Your task to perform on an android device: open app "Fetch Rewards" (install if not already installed) and go to login screen Image 0: 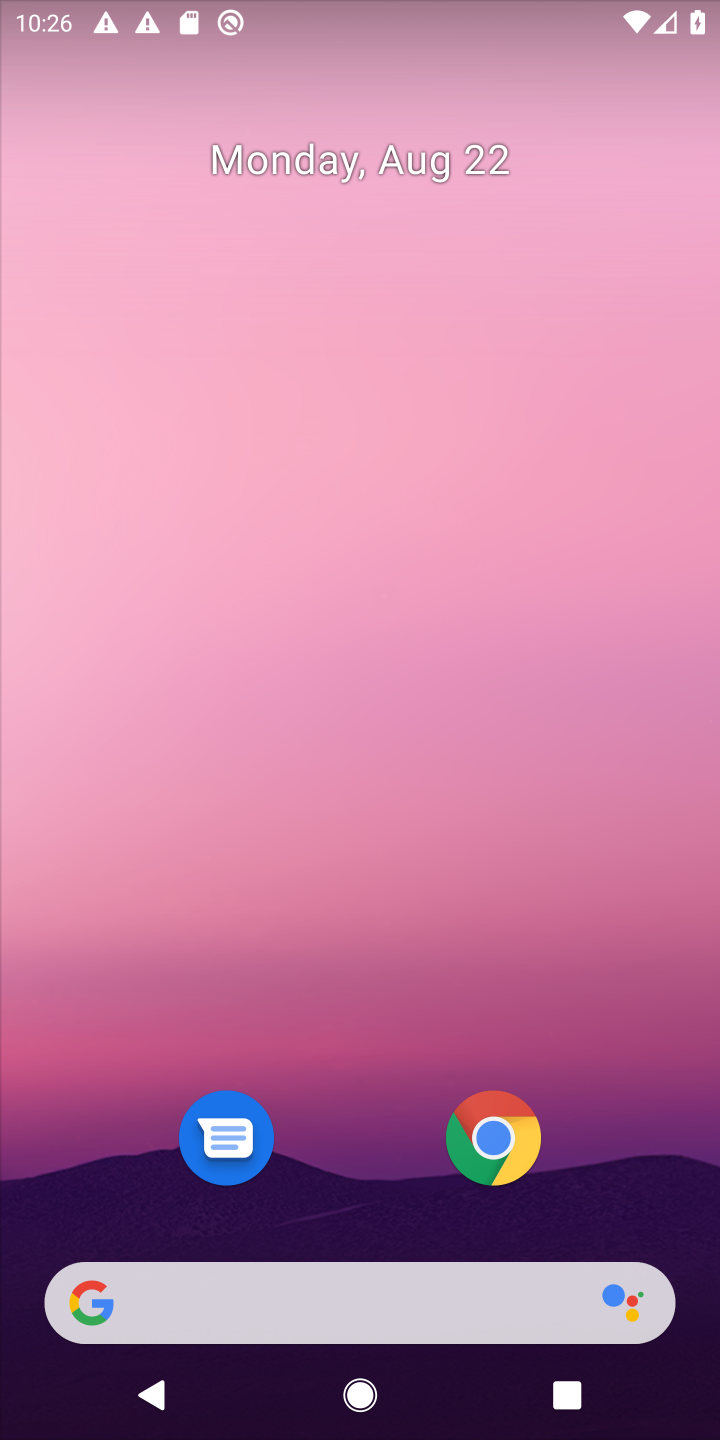
Step 0: press home button
Your task to perform on an android device: open app "Fetch Rewards" (install if not already installed) and go to login screen Image 1: 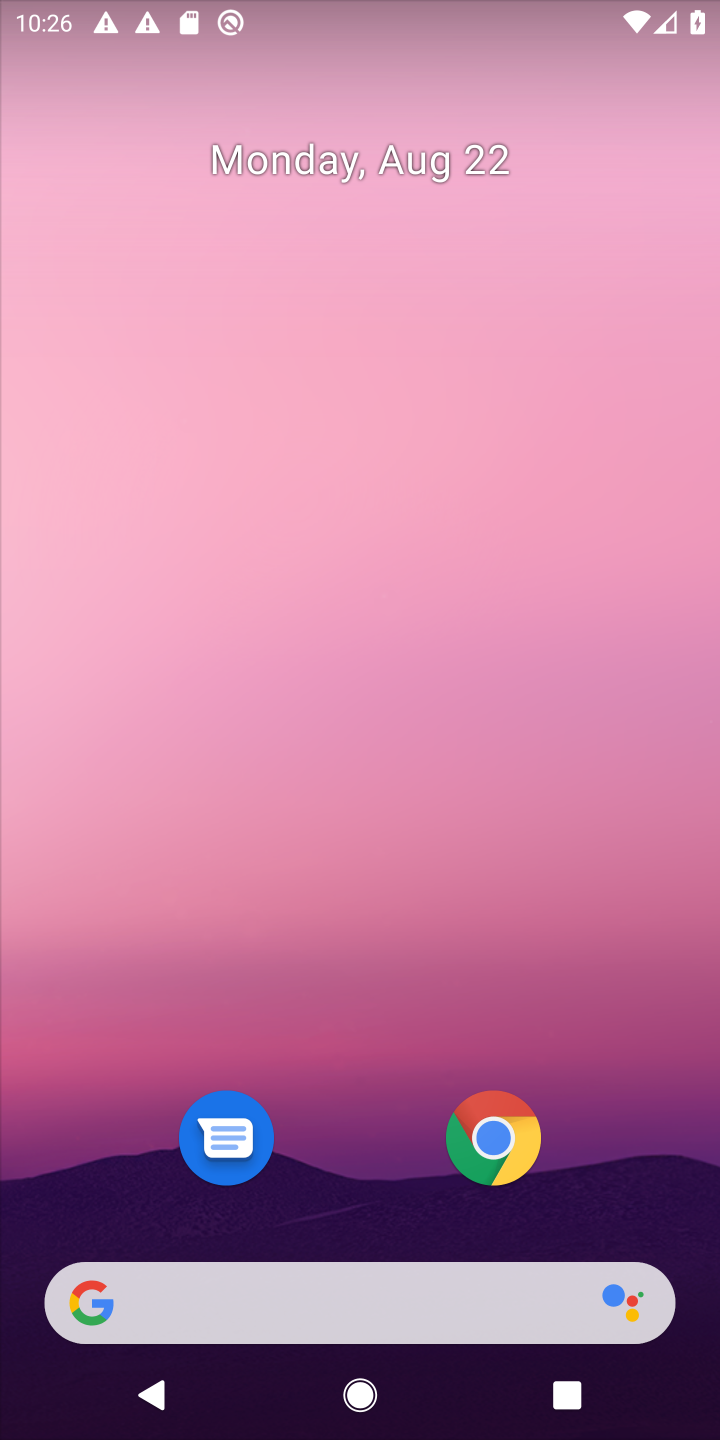
Step 1: drag from (606, 1130) to (656, 235)
Your task to perform on an android device: open app "Fetch Rewards" (install if not already installed) and go to login screen Image 2: 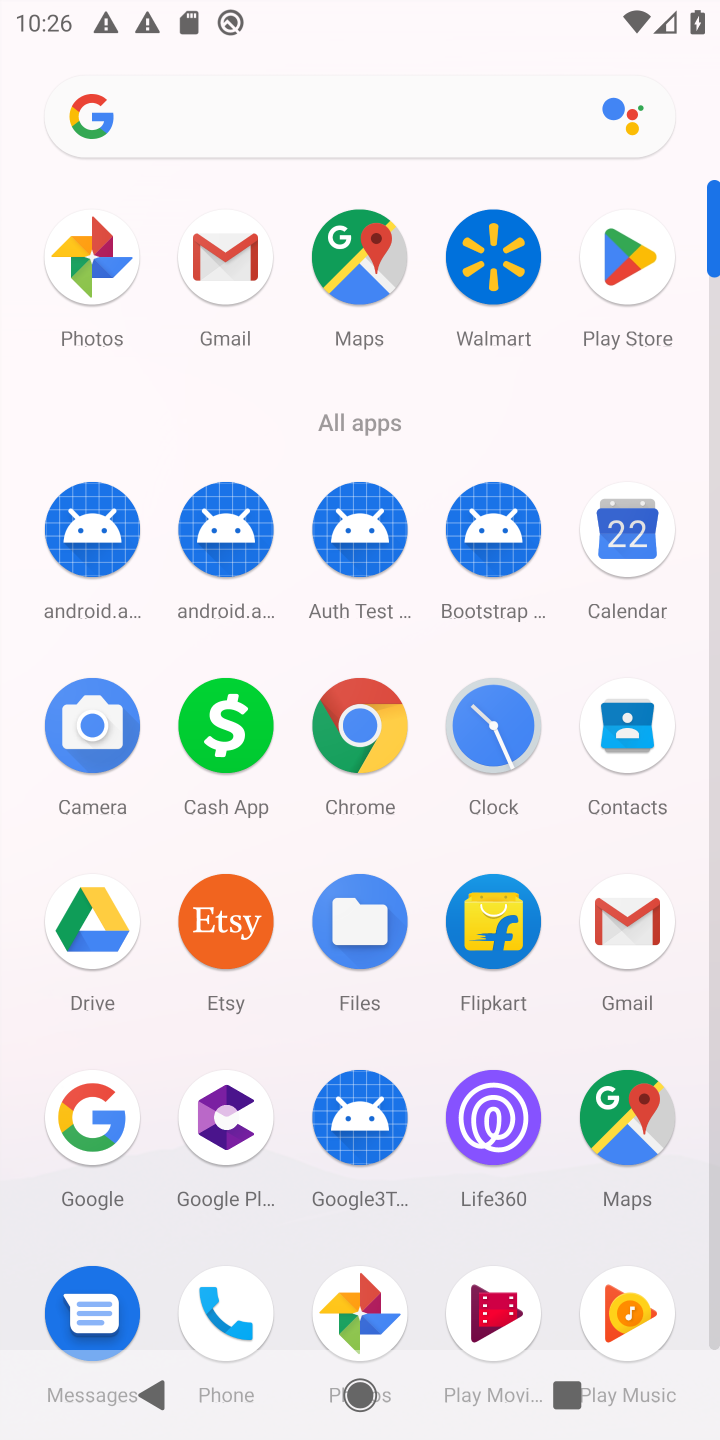
Step 2: click (625, 249)
Your task to perform on an android device: open app "Fetch Rewards" (install if not already installed) and go to login screen Image 3: 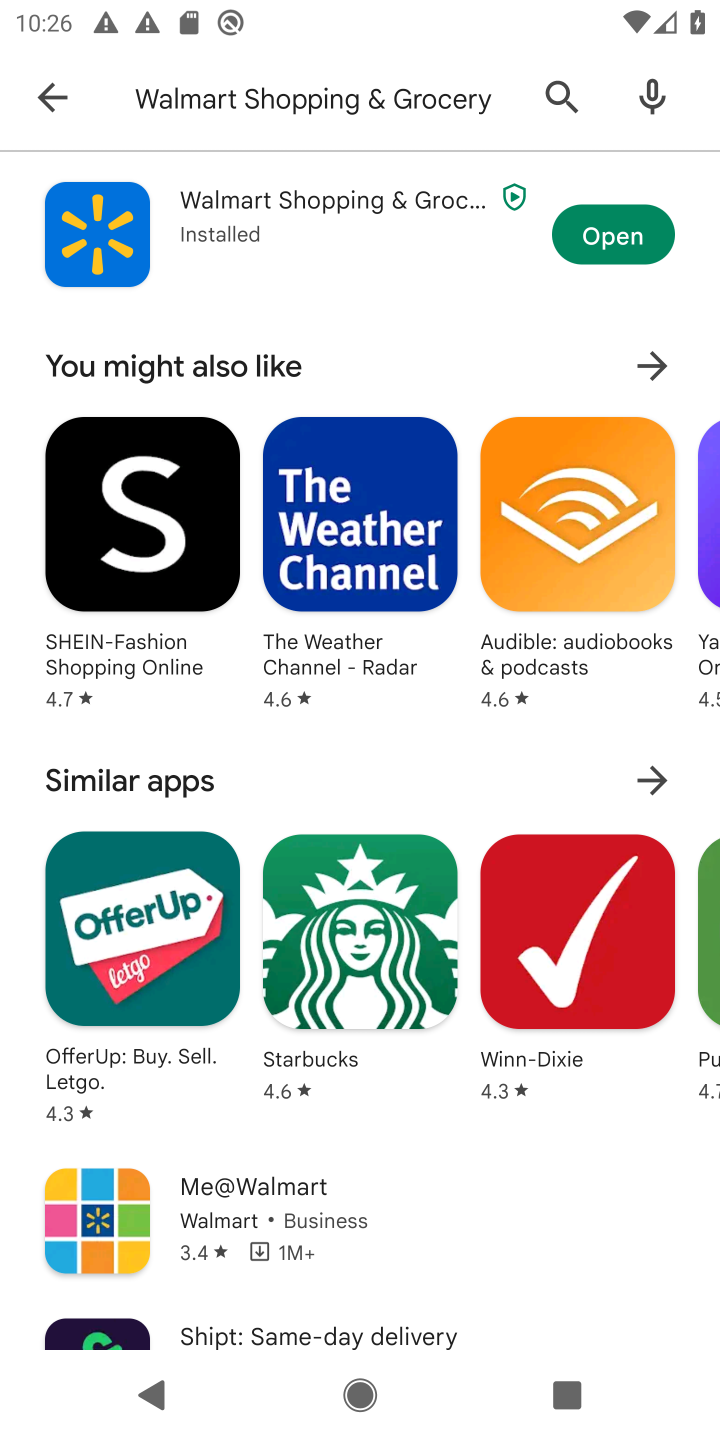
Step 3: press back button
Your task to perform on an android device: open app "Fetch Rewards" (install if not already installed) and go to login screen Image 4: 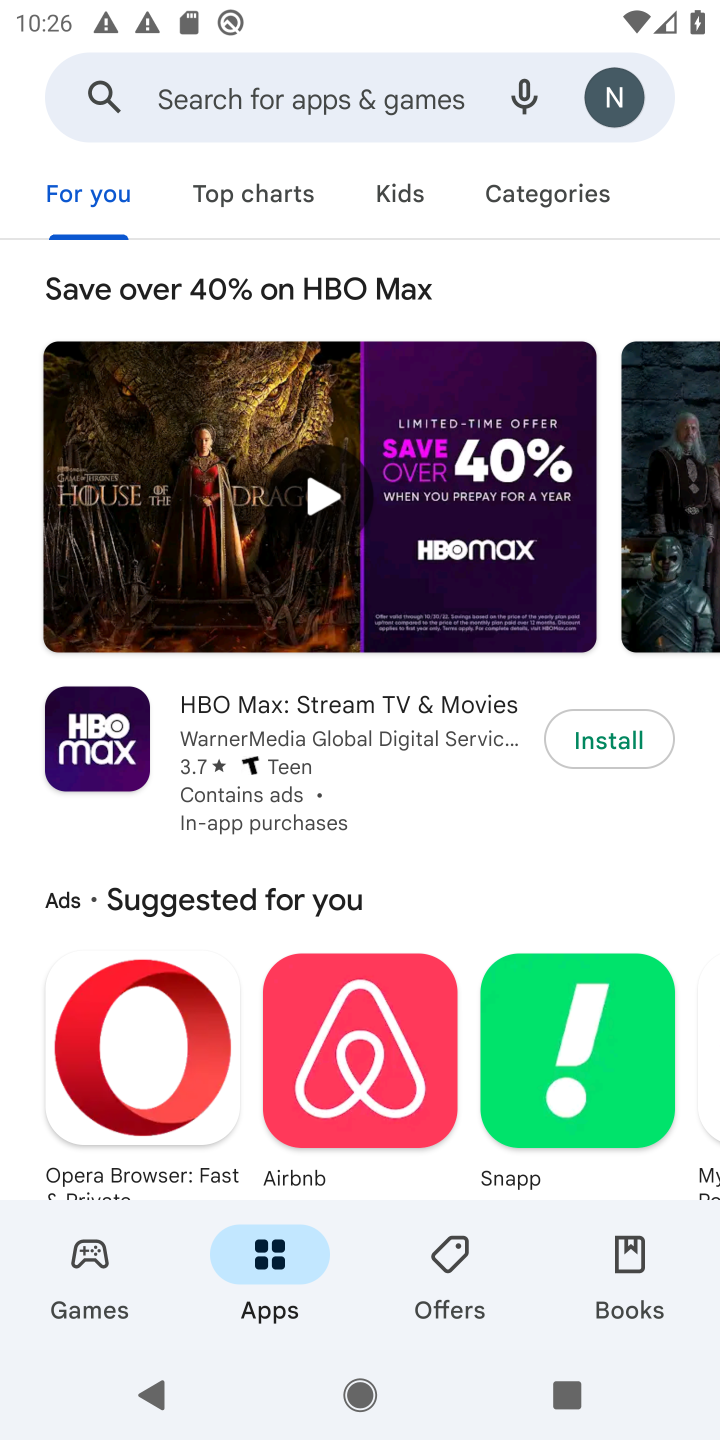
Step 4: click (273, 99)
Your task to perform on an android device: open app "Fetch Rewards" (install if not already installed) and go to login screen Image 5: 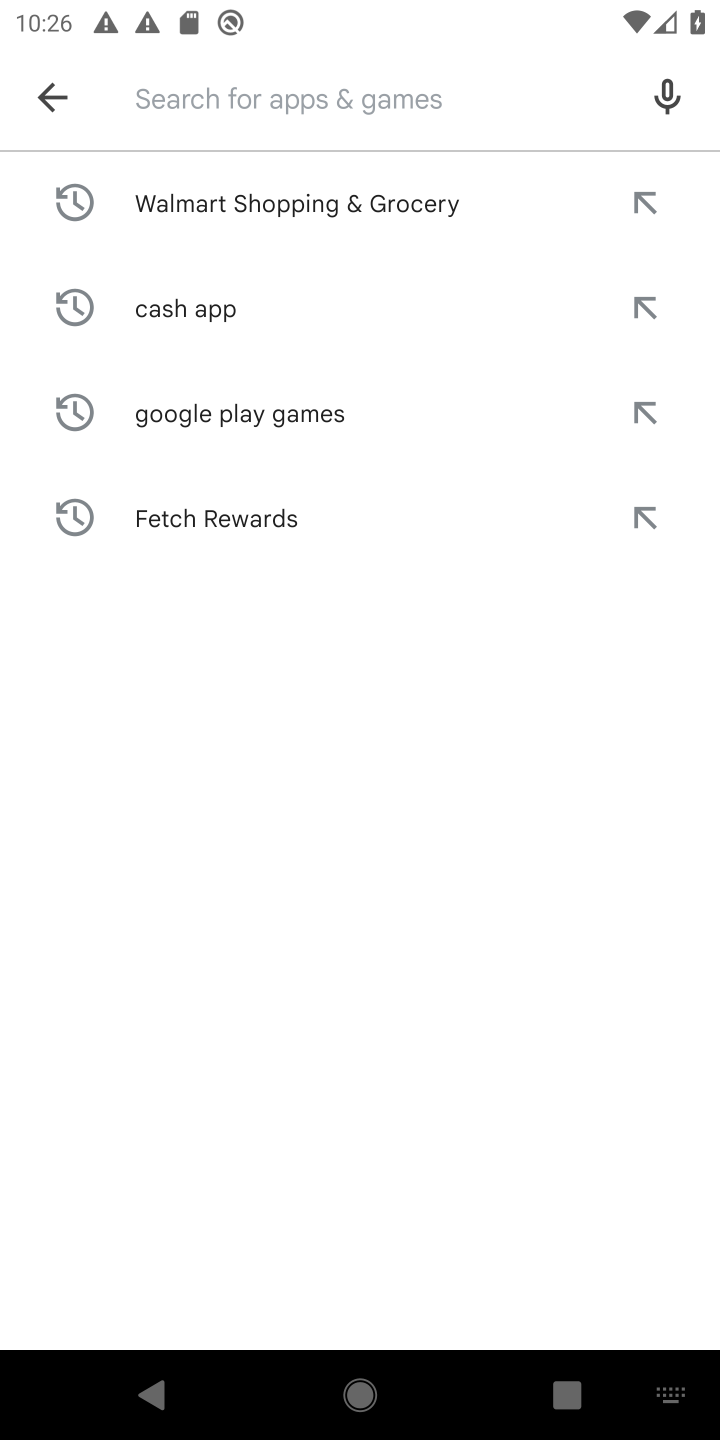
Step 5: type "Fetch Rewards"
Your task to perform on an android device: open app "Fetch Rewards" (install if not already installed) and go to login screen Image 6: 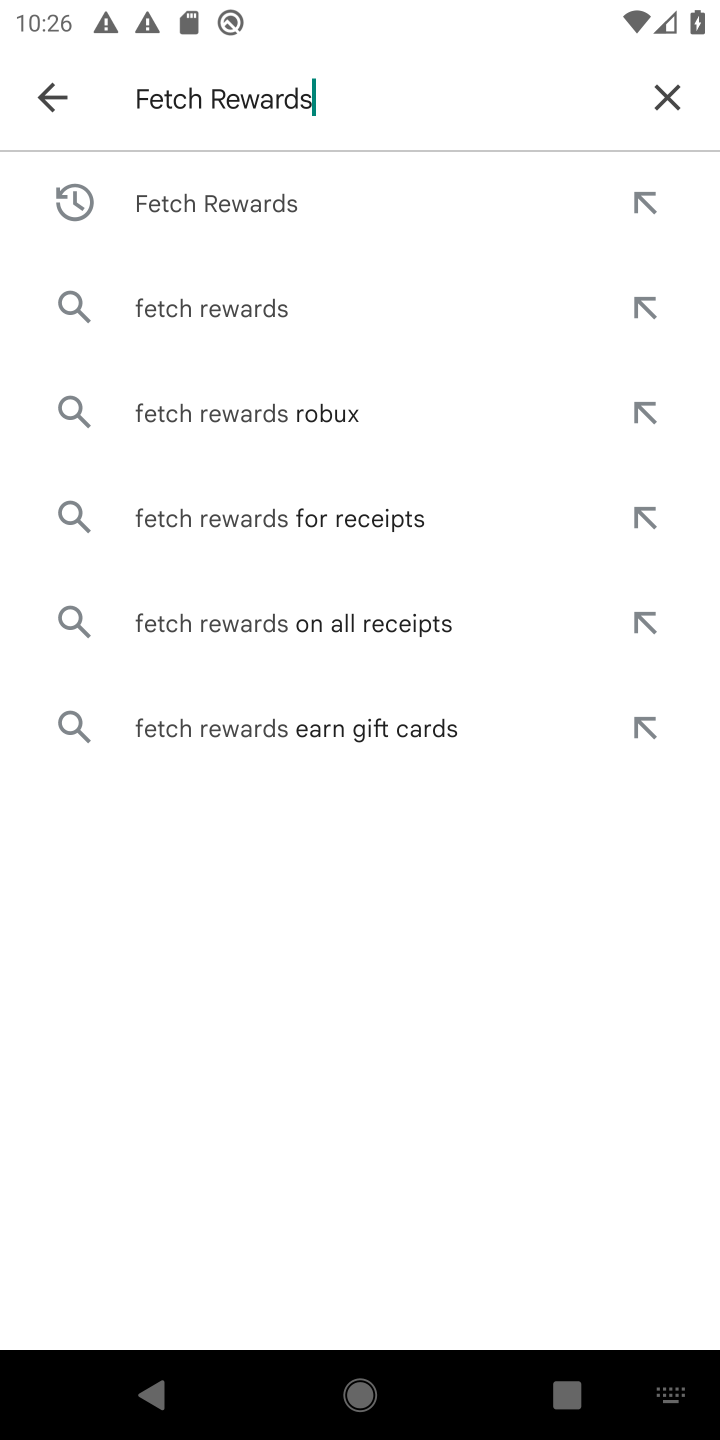
Step 6: press enter
Your task to perform on an android device: open app "Fetch Rewards" (install if not already installed) and go to login screen Image 7: 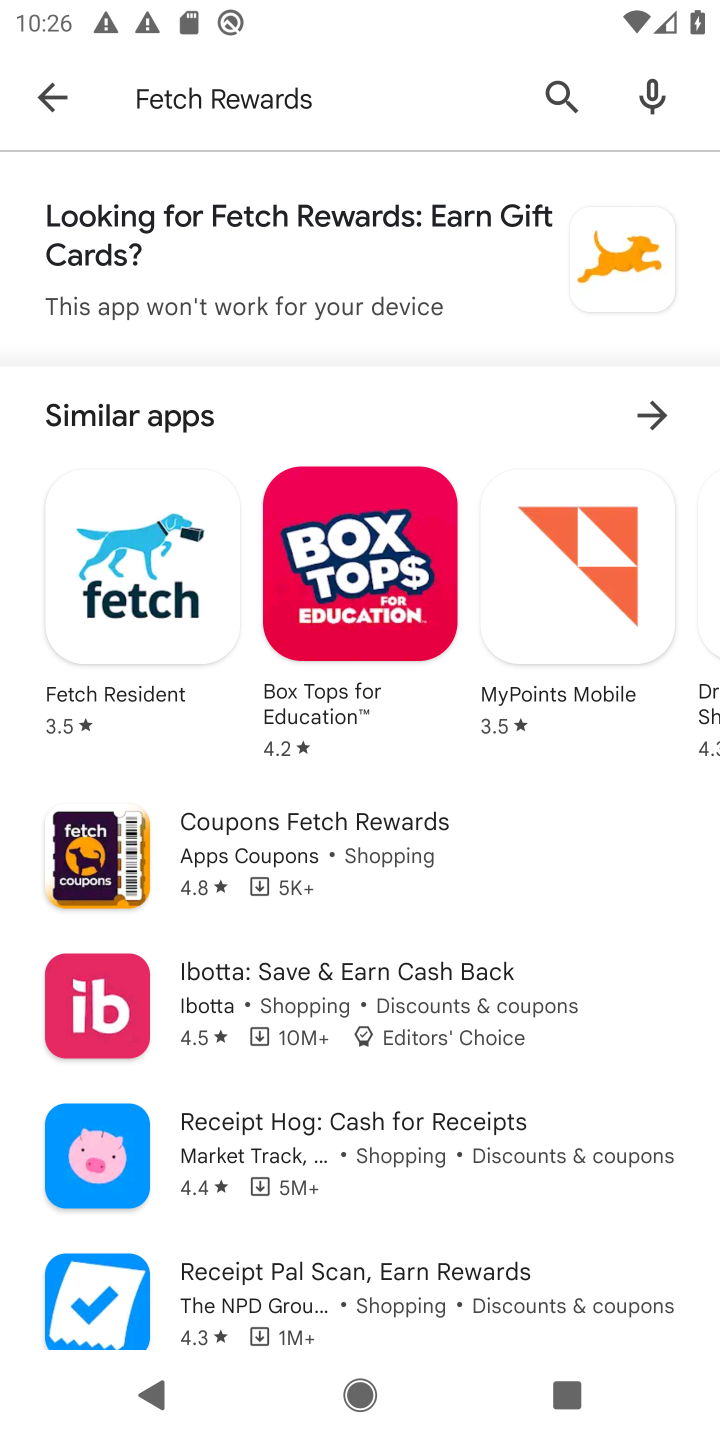
Step 7: task complete